Your task to perform on an android device: Open internet settings Image 0: 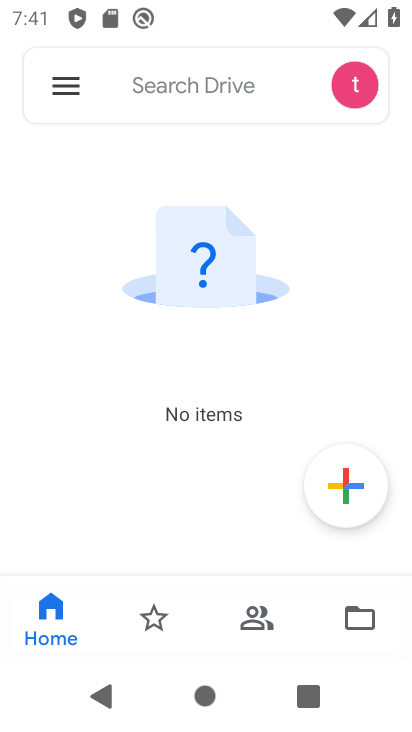
Step 0: press back button
Your task to perform on an android device: Open internet settings Image 1: 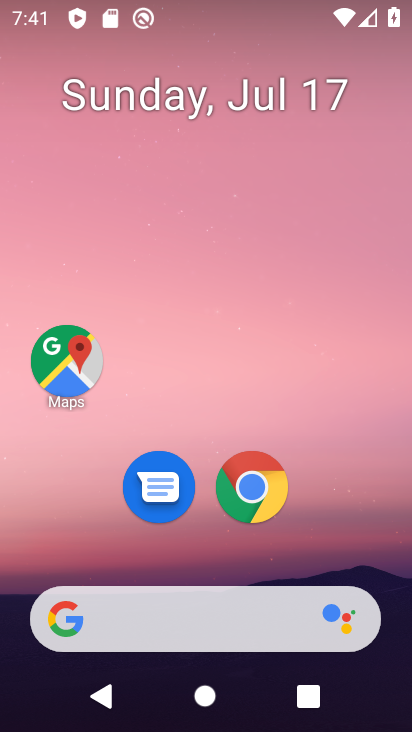
Step 1: drag from (175, 554) to (267, 8)
Your task to perform on an android device: Open internet settings Image 2: 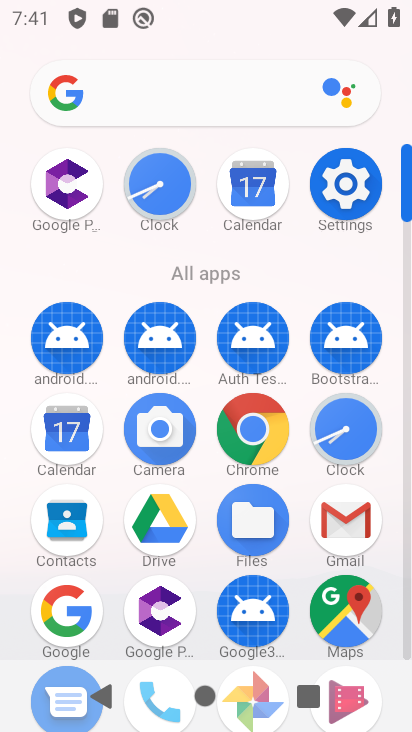
Step 2: click (357, 180)
Your task to perform on an android device: Open internet settings Image 3: 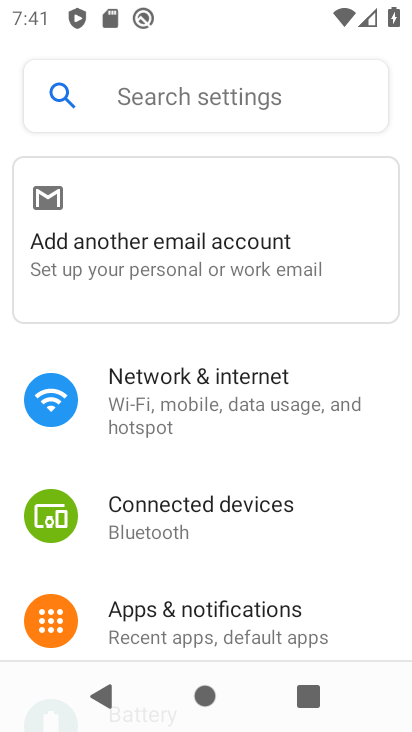
Step 3: click (197, 371)
Your task to perform on an android device: Open internet settings Image 4: 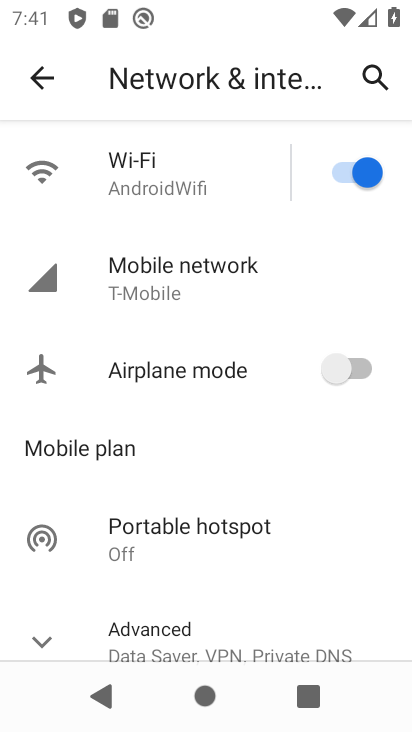
Step 4: task complete